Your task to perform on an android device: open chrome and create a bookmark for the current page Image 0: 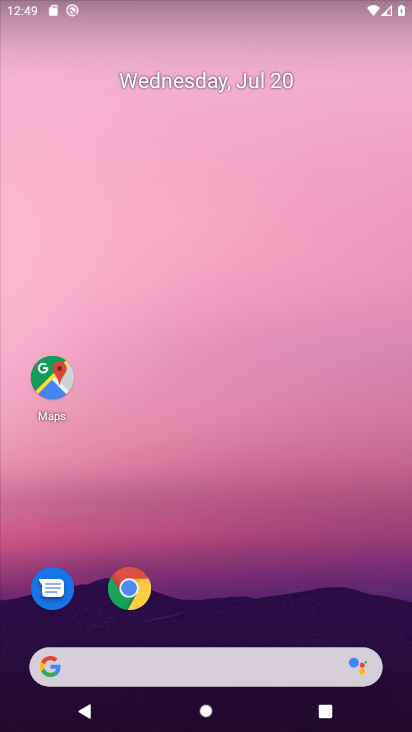
Step 0: drag from (129, 581) to (166, 144)
Your task to perform on an android device: open chrome and create a bookmark for the current page Image 1: 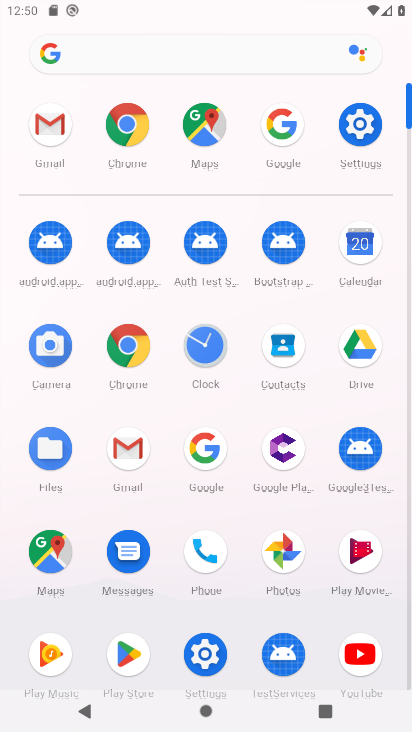
Step 1: click (128, 115)
Your task to perform on an android device: open chrome and create a bookmark for the current page Image 2: 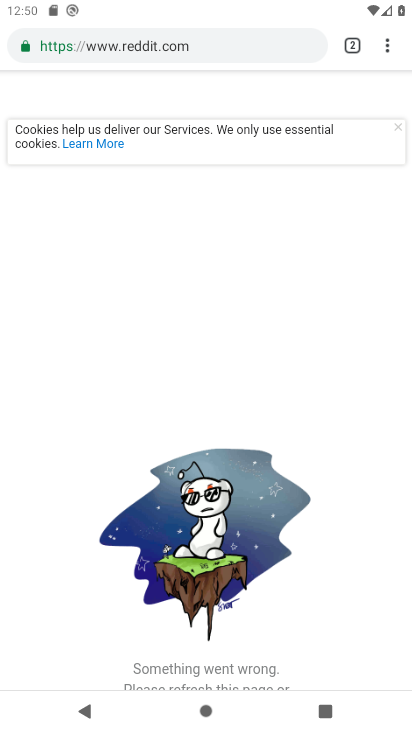
Step 2: click (382, 42)
Your task to perform on an android device: open chrome and create a bookmark for the current page Image 3: 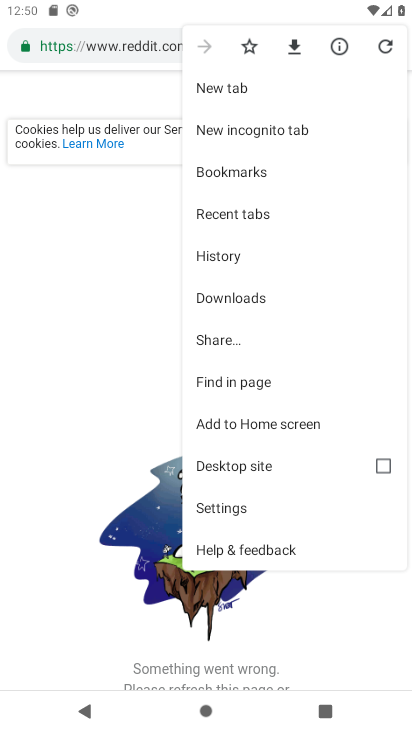
Step 3: click (256, 42)
Your task to perform on an android device: open chrome and create a bookmark for the current page Image 4: 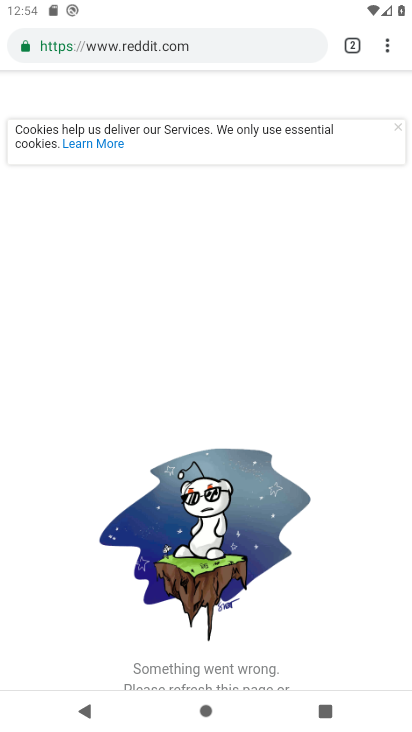
Step 4: task complete